Your task to perform on an android device: Do I have any events today? Image 0: 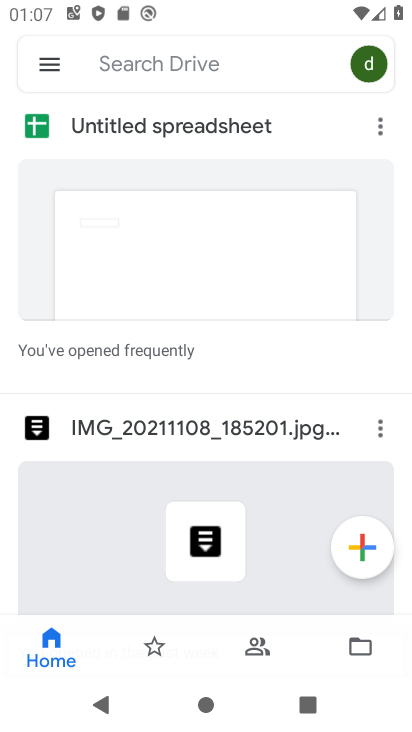
Step 0: press home button
Your task to perform on an android device: Do I have any events today? Image 1: 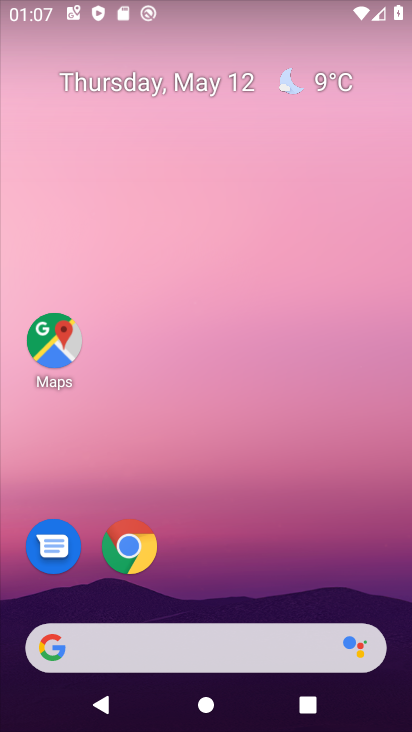
Step 1: drag from (158, 559) to (240, 181)
Your task to perform on an android device: Do I have any events today? Image 2: 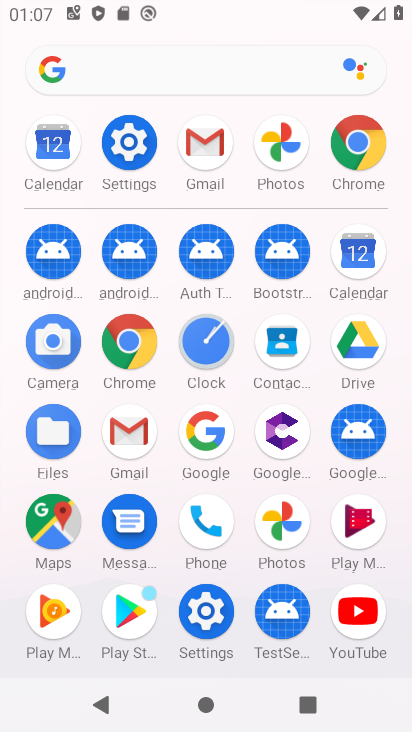
Step 2: click (349, 256)
Your task to perform on an android device: Do I have any events today? Image 3: 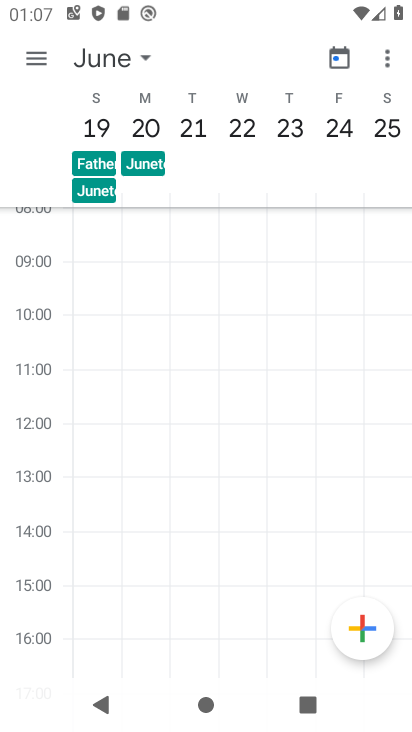
Step 3: click (120, 72)
Your task to perform on an android device: Do I have any events today? Image 4: 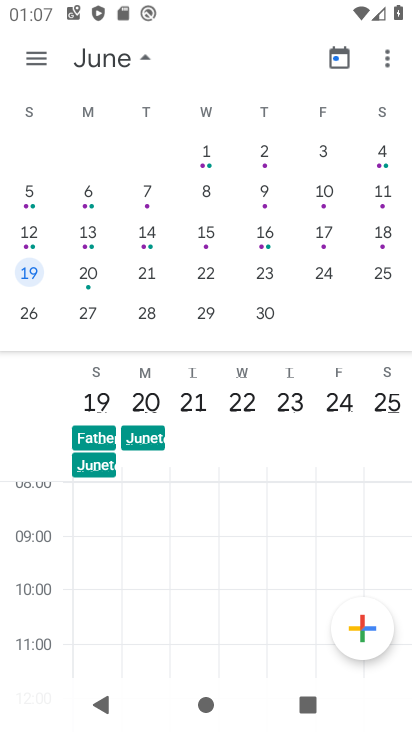
Step 4: task complete